Your task to perform on an android device: Open Google Chrome and click the shortcut for Amazon.com Image 0: 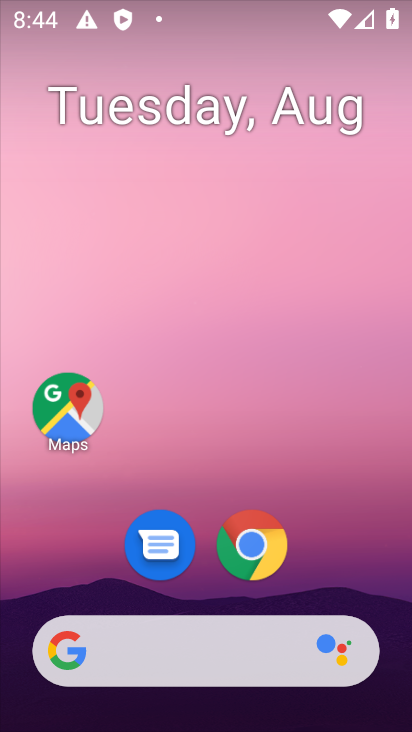
Step 0: click (249, 538)
Your task to perform on an android device: Open Google Chrome and click the shortcut for Amazon.com Image 1: 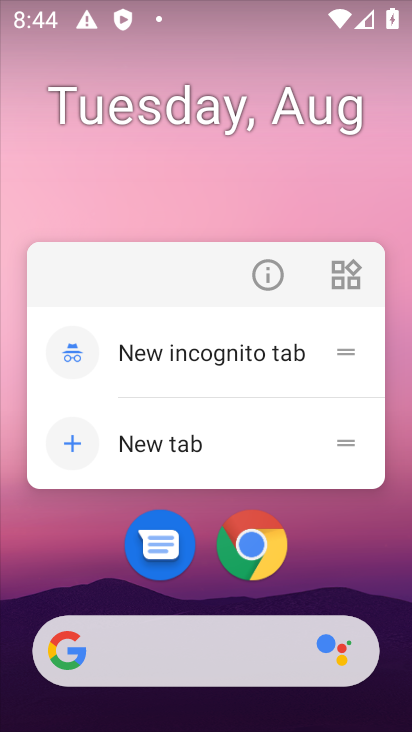
Step 1: click (253, 537)
Your task to perform on an android device: Open Google Chrome and click the shortcut for Amazon.com Image 2: 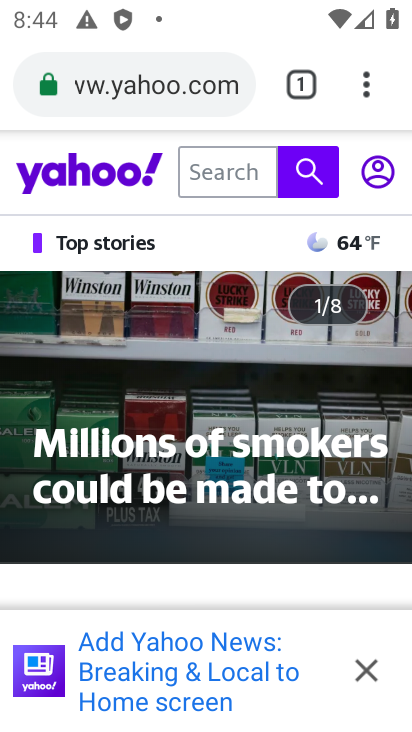
Step 2: click (298, 78)
Your task to perform on an android device: Open Google Chrome and click the shortcut for Amazon.com Image 3: 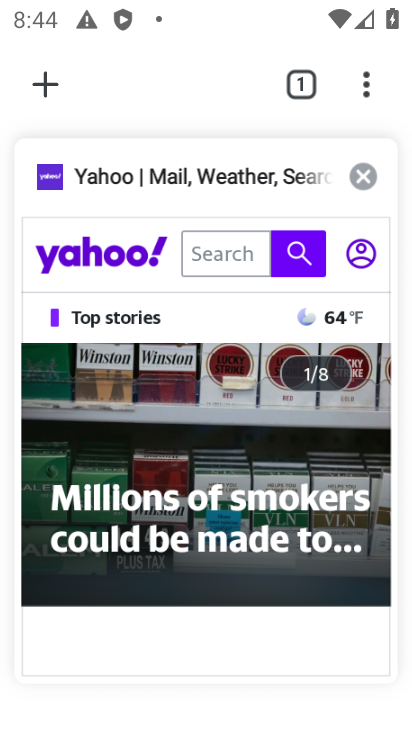
Step 3: click (354, 176)
Your task to perform on an android device: Open Google Chrome and click the shortcut for Amazon.com Image 4: 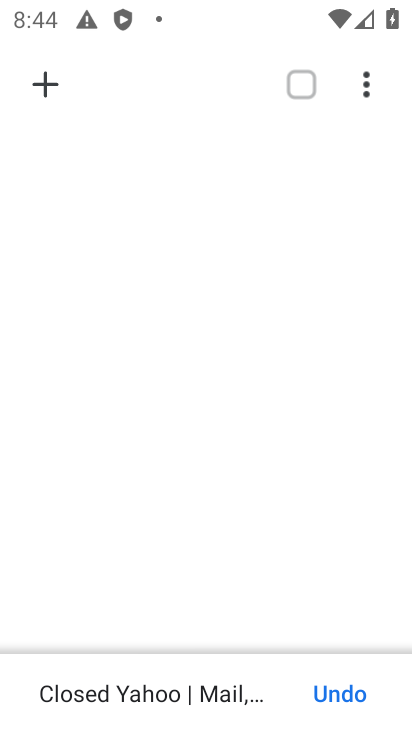
Step 4: click (39, 85)
Your task to perform on an android device: Open Google Chrome and click the shortcut for Amazon.com Image 5: 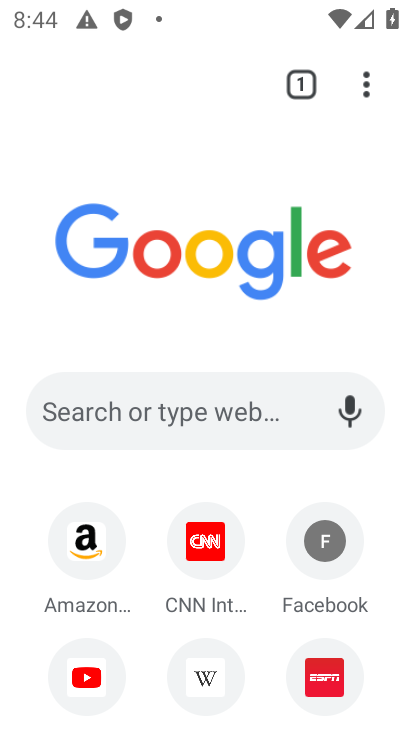
Step 5: click (83, 542)
Your task to perform on an android device: Open Google Chrome and click the shortcut for Amazon.com Image 6: 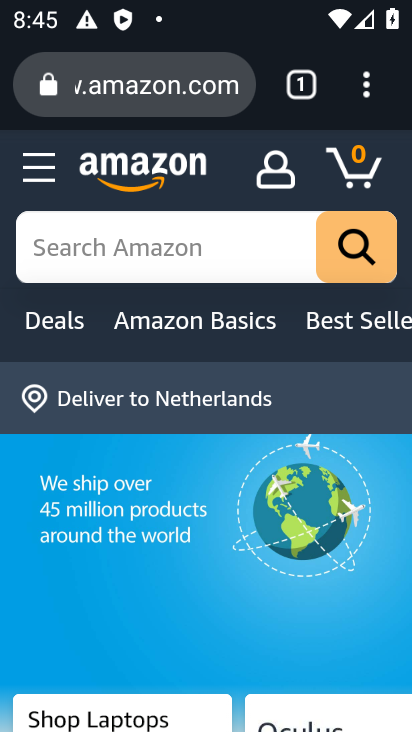
Step 6: task complete